Your task to perform on an android device: Open Chrome and go to settings Image 0: 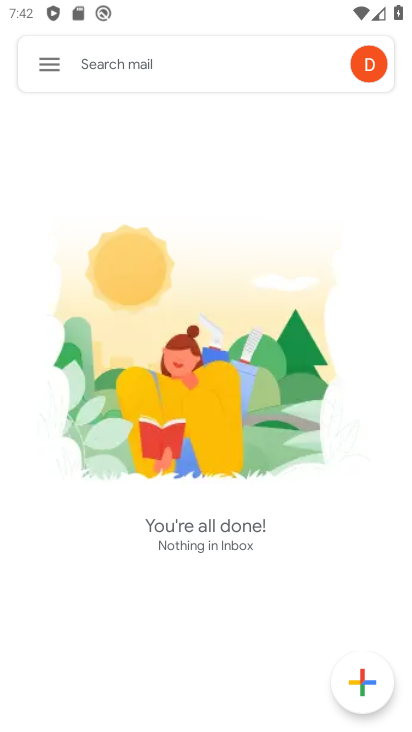
Step 0: press home button
Your task to perform on an android device: Open Chrome and go to settings Image 1: 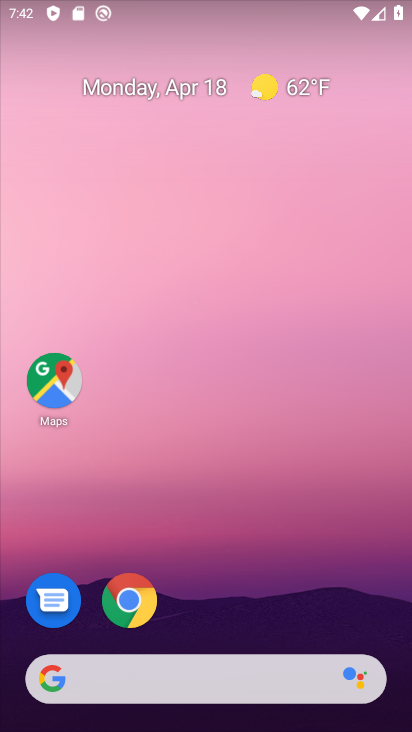
Step 1: click (140, 599)
Your task to perform on an android device: Open Chrome and go to settings Image 2: 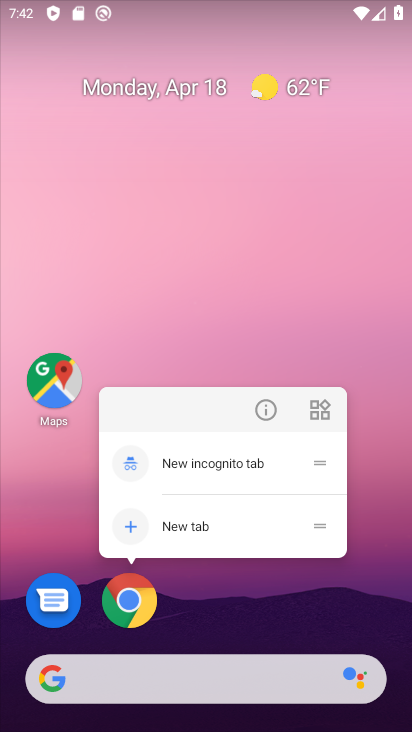
Step 2: click (120, 602)
Your task to perform on an android device: Open Chrome and go to settings Image 3: 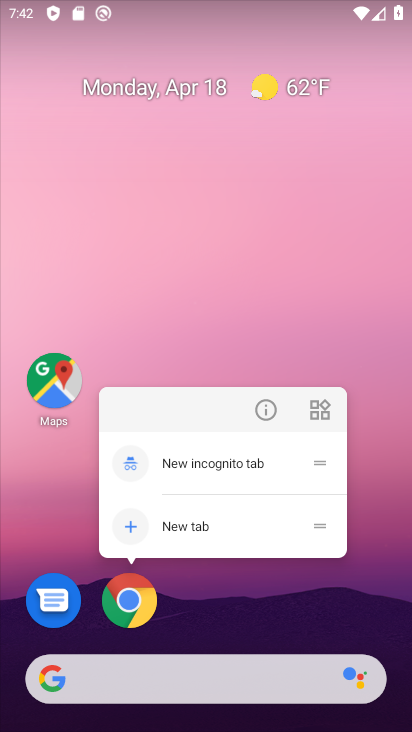
Step 3: click (119, 602)
Your task to perform on an android device: Open Chrome and go to settings Image 4: 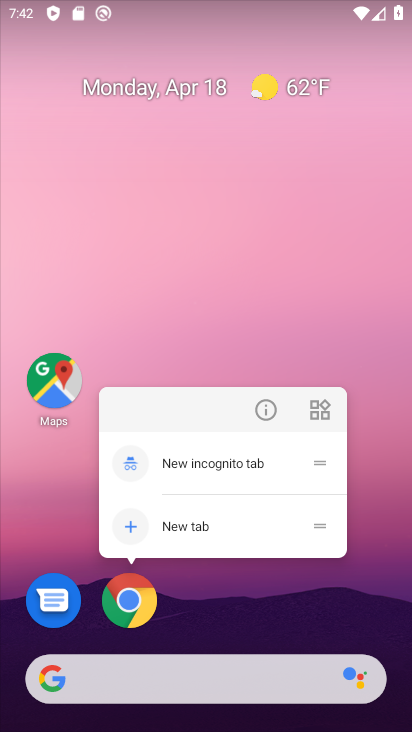
Step 4: click (119, 602)
Your task to perform on an android device: Open Chrome and go to settings Image 5: 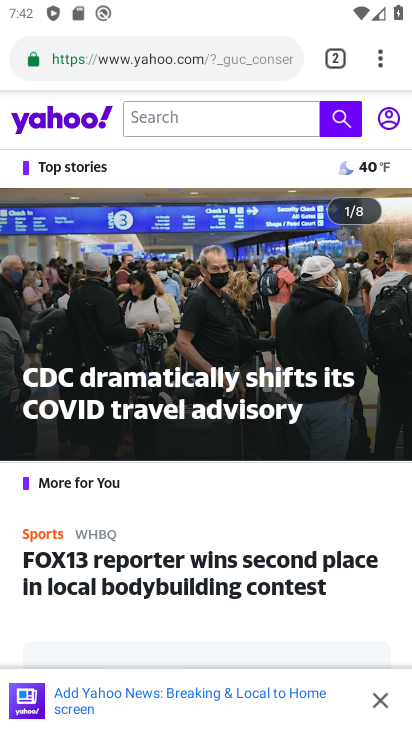
Step 5: click (375, 69)
Your task to perform on an android device: Open Chrome and go to settings Image 6: 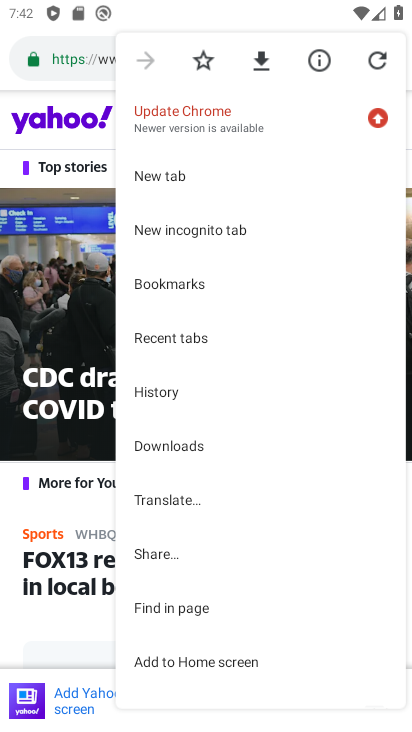
Step 6: drag from (196, 597) to (206, 211)
Your task to perform on an android device: Open Chrome and go to settings Image 7: 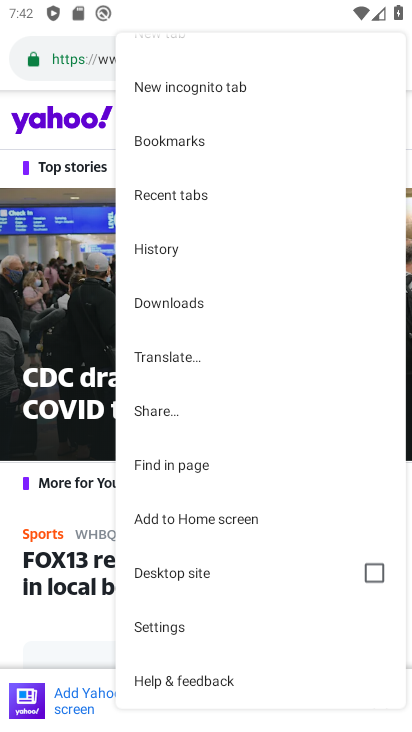
Step 7: click (143, 618)
Your task to perform on an android device: Open Chrome and go to settings Image 8: 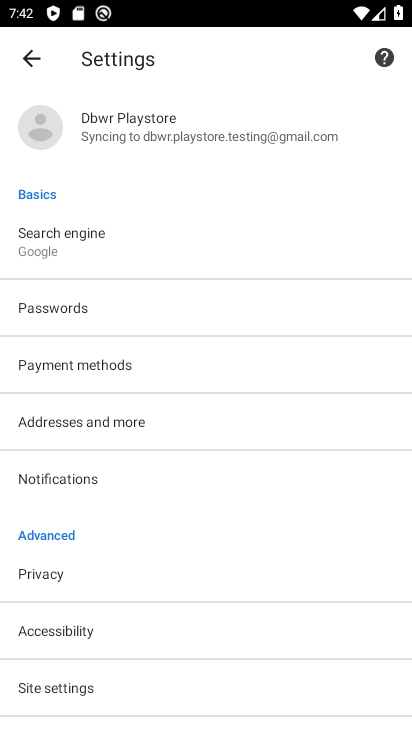
Step 8: task complete